Your task to perform on an android device: Search for vegetarian restaurants on Maps Image 0: 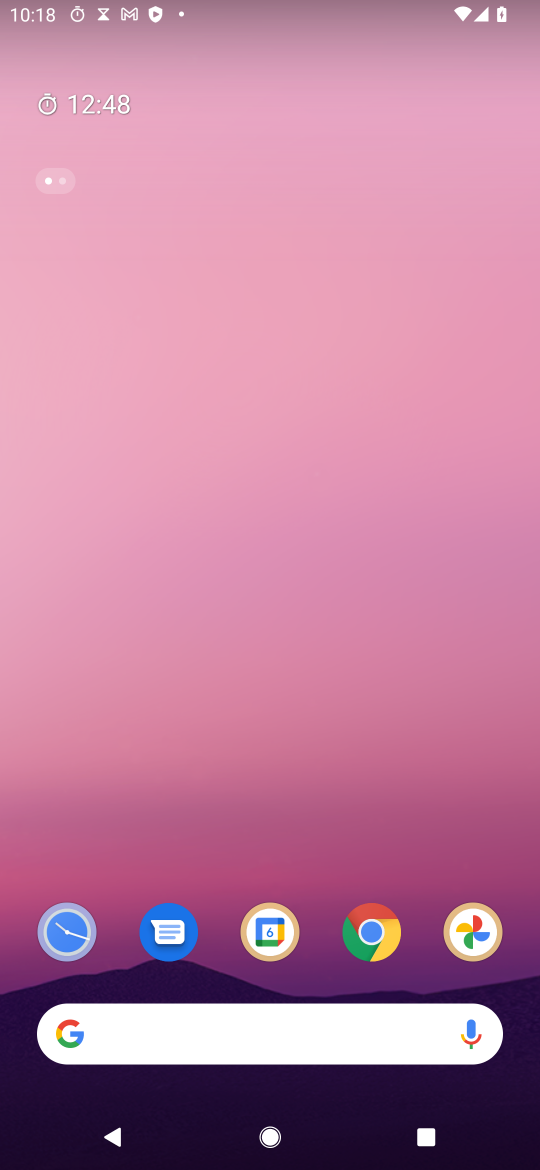
Step 0: drag from (435, 867) to (298, 2)
Your task to perform on an android device: Search for vegetarian restaurants on Maps Image 1: 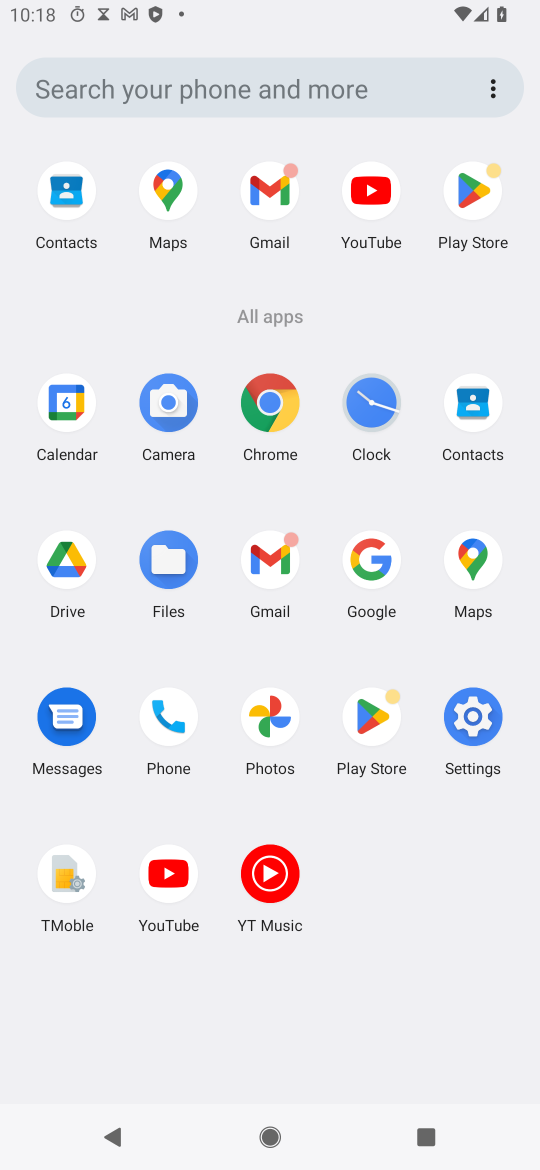
Step 1: click (165, 191)
Your task to perform on an android device: Search for vegetarian restaurants on Maps Image 2: 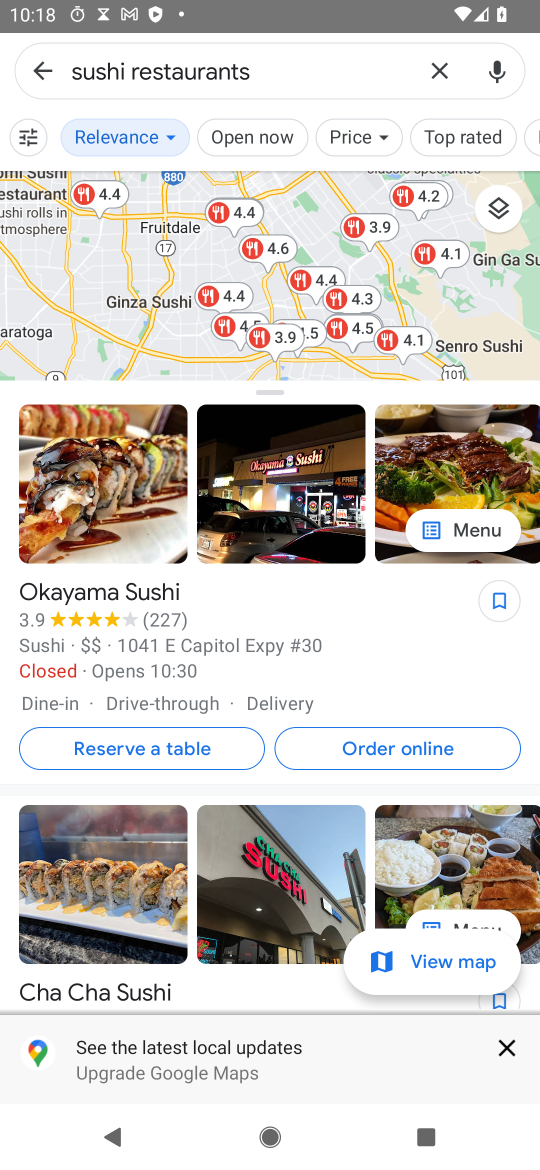
Step 2: click (432, 73)
Your task to perform on an android device: Search for vegetarian restaurants on Maps Image 3: 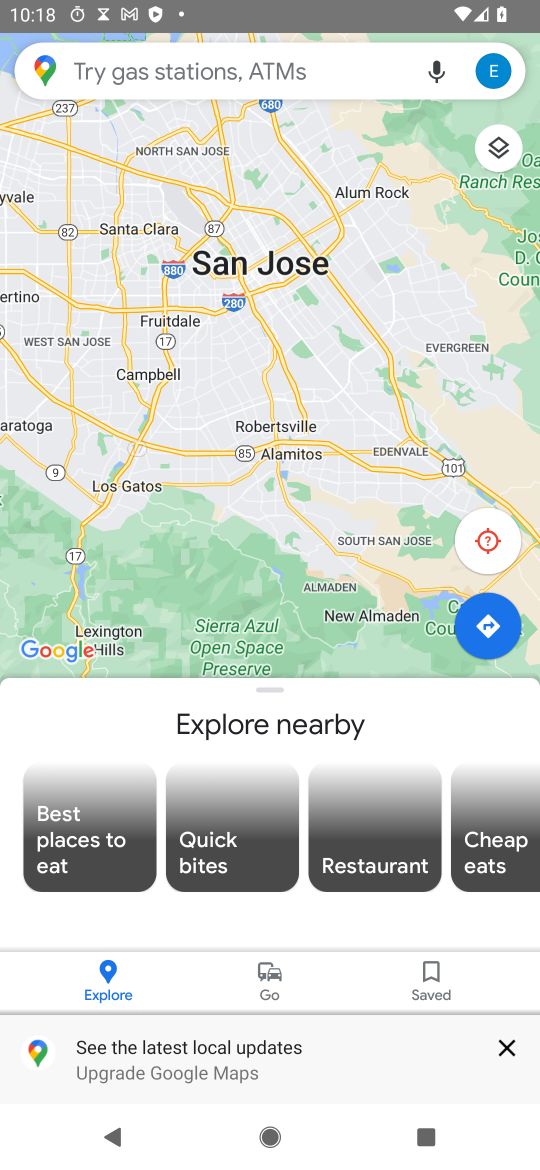
Step 3: click (303, 71)
Your task to perform on an android device: Search for vegetarian restaurants on Maps Image 4: 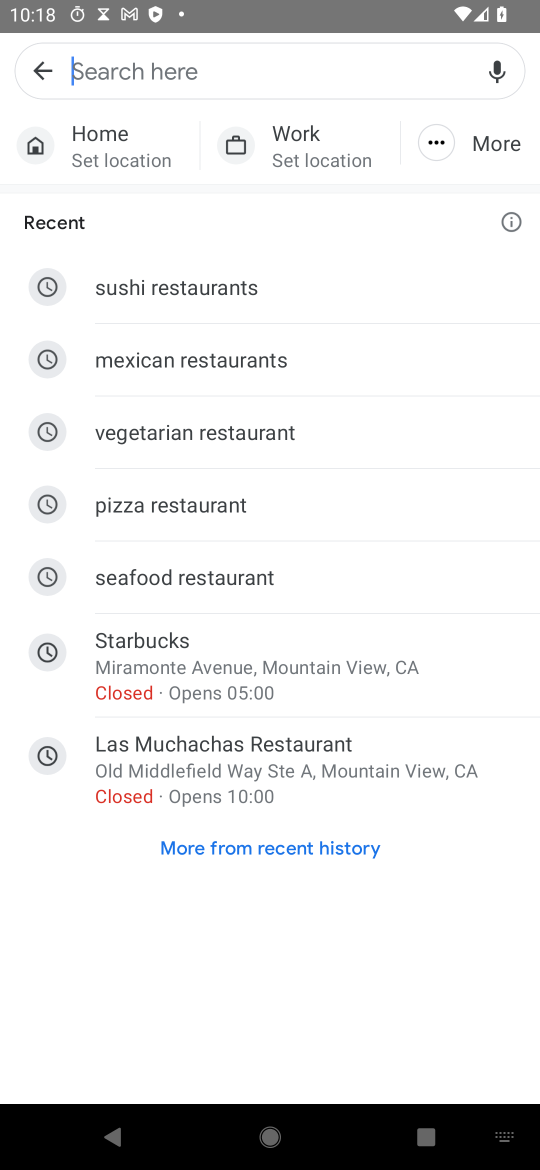
Step 4: click (330, 410)
Your task to perform on an android device: Search for vegetarian restaurants on Maps Image 5: 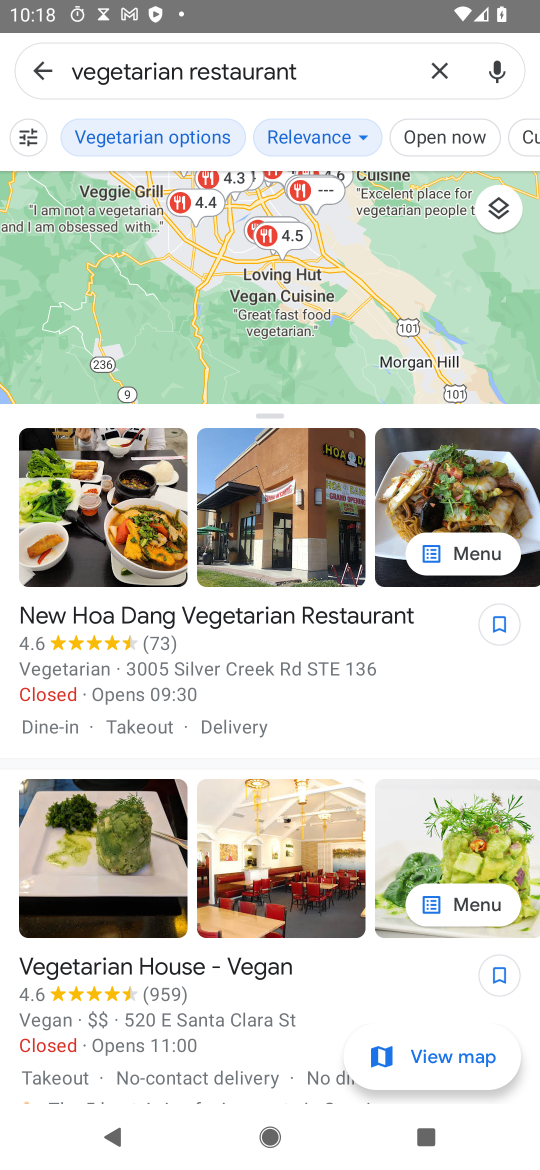
Step 5: task complete